Your task to perform on an android device: turn off notifications settings in the gmail app Image 0: 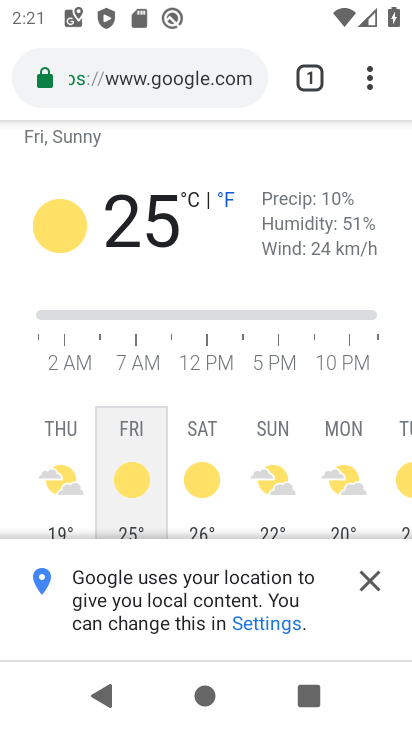
Step 0: press home button
Your task to perform on an android device: turn off notifications settings in the gmail app Image 1: 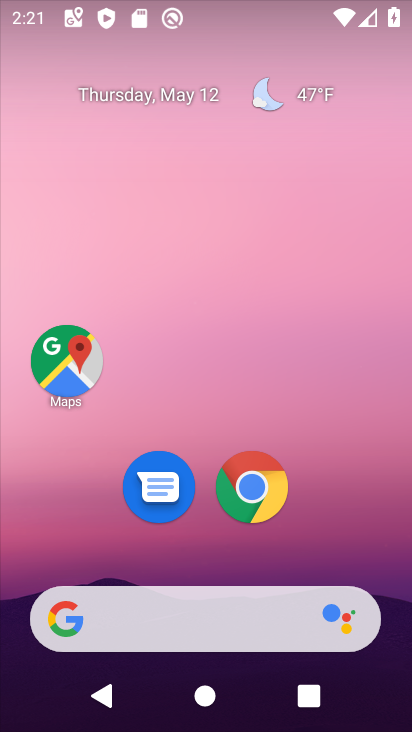
Step 1: drag from (319, 498) to (327, 39)
Your task to perform on an android device: turn off notifications settings in the gmail app Image 2: 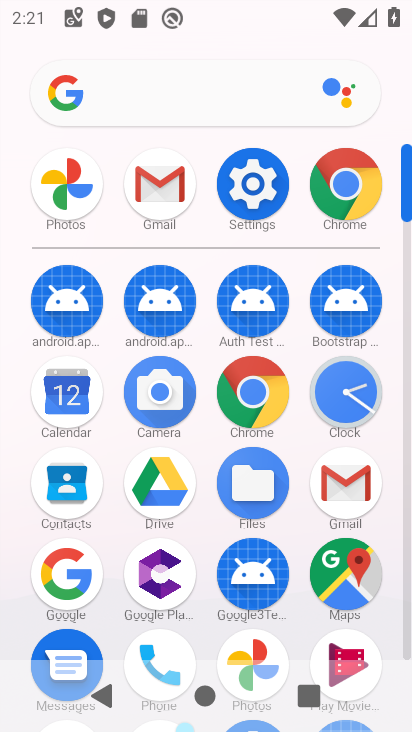
Step 2: click (139, 199)
Your task to perform on an android device: turn off notifications settings in the gmail app Image 3: 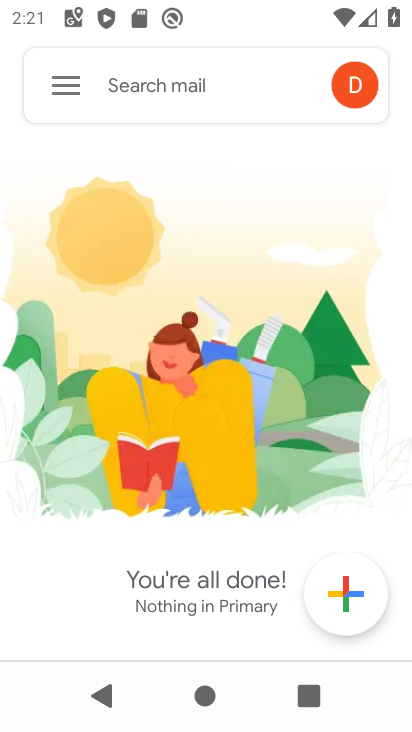
Step 3: click (70, 88)
Your task to perform on an android device: turn off notifications settings in the gmail app Image 4: 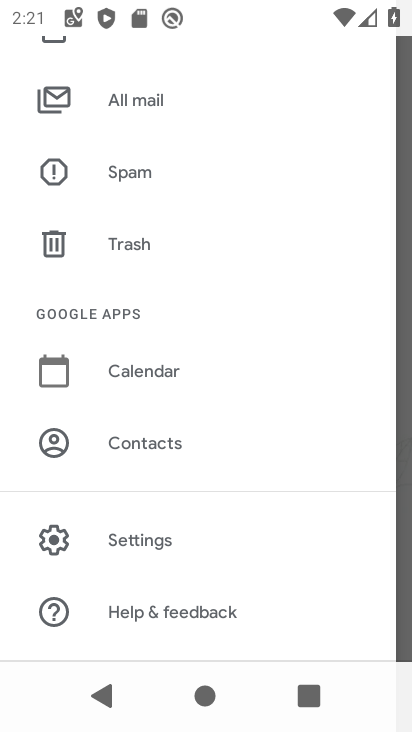
Step 4: click (182, 540)
Your task to perform on an android device: turn off notifications settings in the gmail app Image 5: 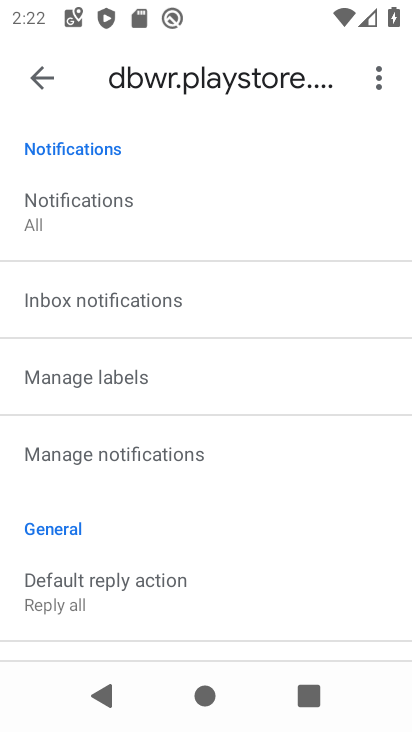
Step 5: drag from (160, 537) to (239, 213)
Your task to perform on an android device: turn off notifications settings in the gmail app Image 6: 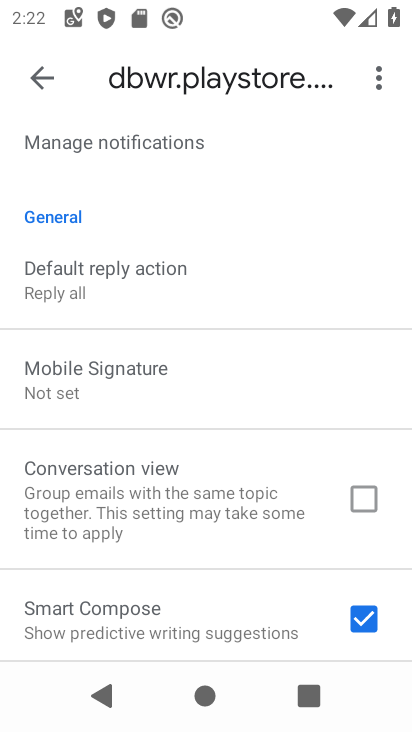
Step 6: click (139, 150)
Your task to perform on an android device: turn off notifications settings in the gmail app Image 7: 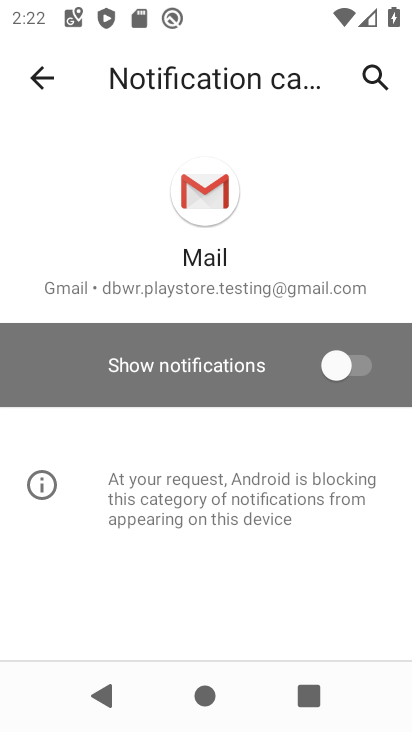
Step 7: task complete